Your task to perform on an android device: Open calendar and show me the third week of next month Image 0: 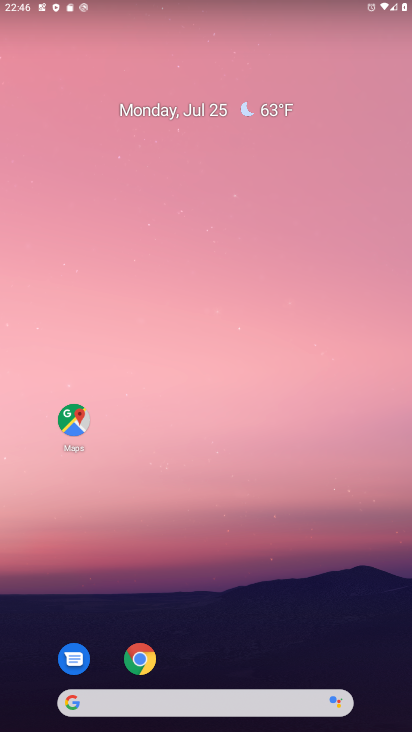
Step 0: drag from (194, 726) to (194, 72)
Your task to perform on an android device: Open calendar and show me the third week of next month Image 1: 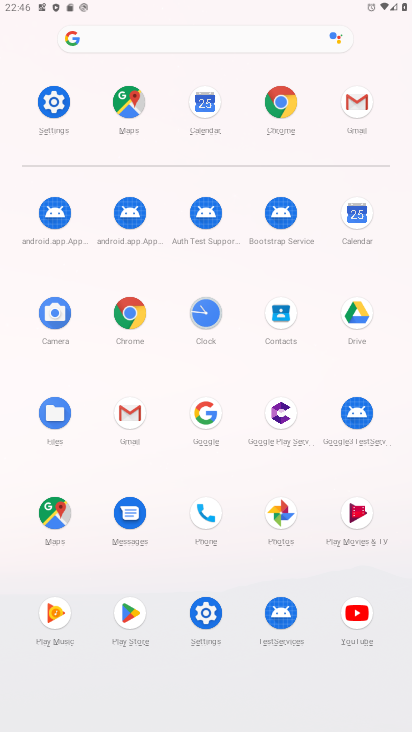
Step 1: click (352, 207)
Your task to perform on an android device: Open calendar and show me the third week of next month Image 2: 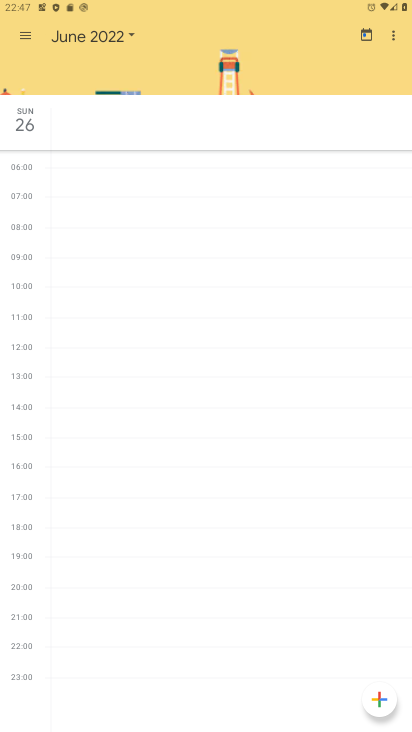
Step 2: click (126, 30)
Your task to perform on an android device: Open calendar and show me the third week of next month Image 3: 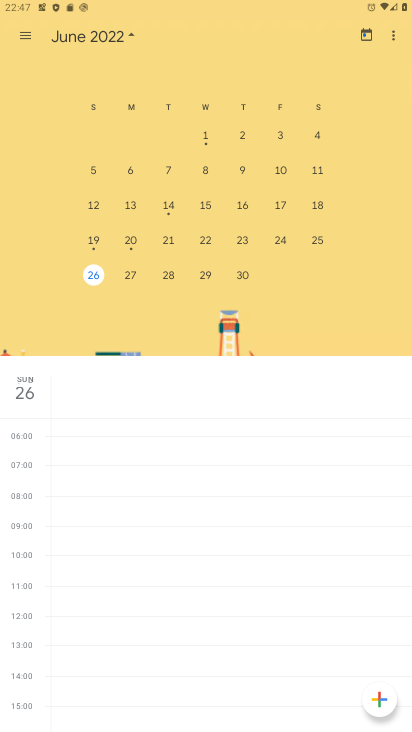
Step 3: drag from (325, 203) to (92, 179)
Your task to perform on an android device: Open calendar and show me the third week of next month Image 4: 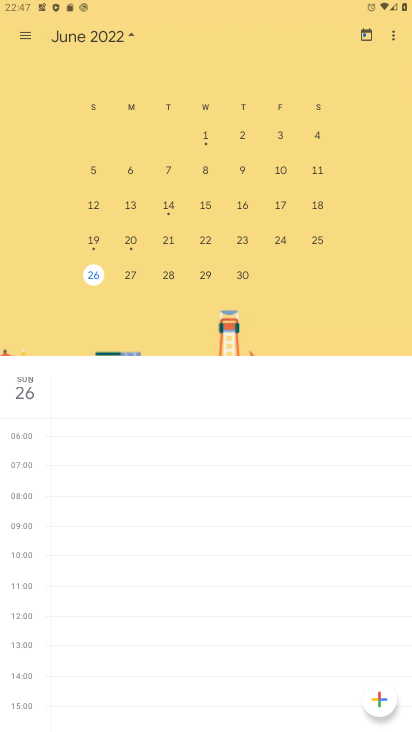
Step 4: click (129, 233)
Your task to perform on an android device: Open calendar and show me the third week of next month Image 5: 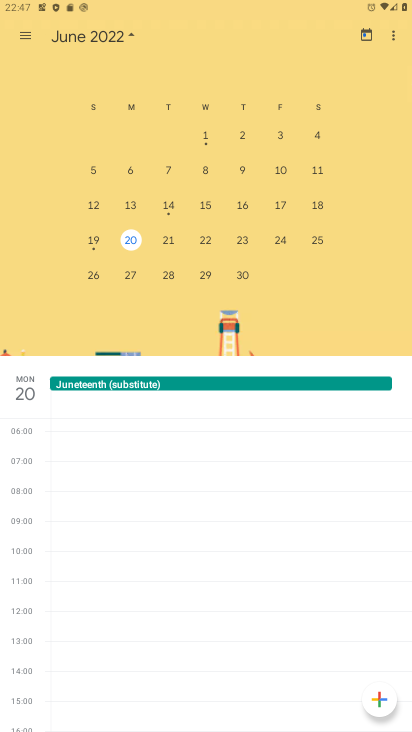
Step 5: click (21, 34)
Your task to perform on an android device: Open calendar and show me the third week of next month Image 6: 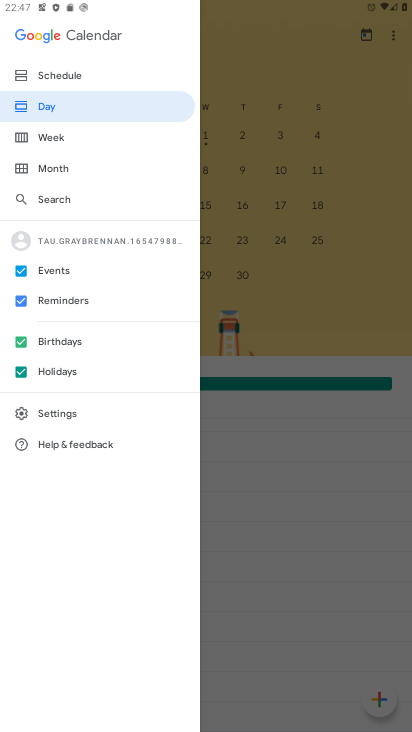
Step 6: click (53, 140)
Your task to perform on an android device: Open calendar and show me the third week of next month Image 7: 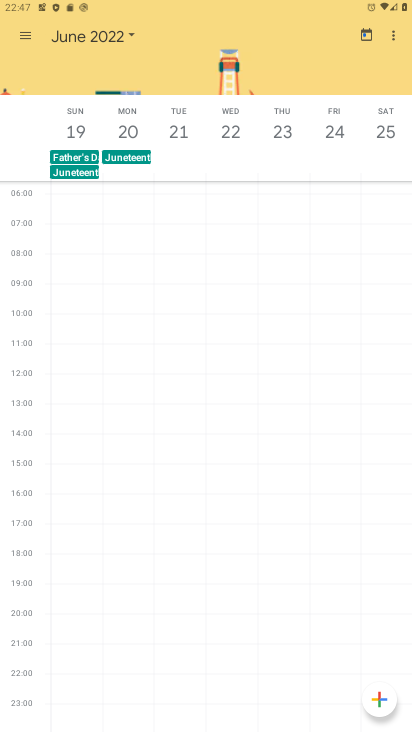
Step 7: task complete